Your task to perform on an android device: change the clock display to analog Image 0: 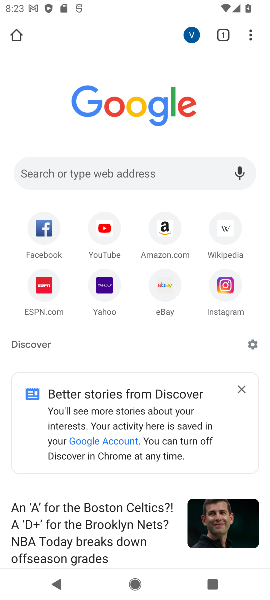
Step 0: press home button
Your task to perform on an android device: change the clock display to analog Image 1: 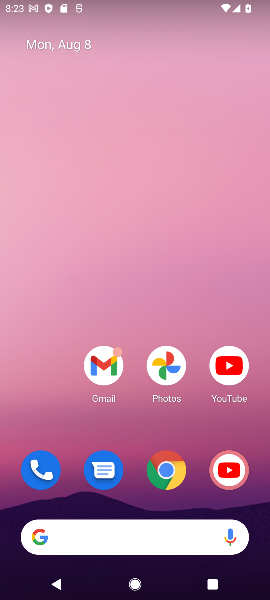
Step 1: drag from (128, 355) to (135, 262)
Your task to perform on an android device: change the clock display to analog Image 2: 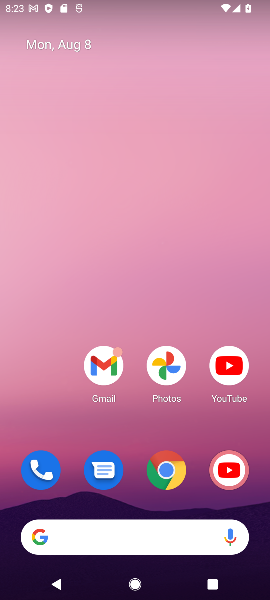
Step 2: drag from (152, 522) to (179, 151)
Your task to perform on an android device: change the clock display to analog Image 3: 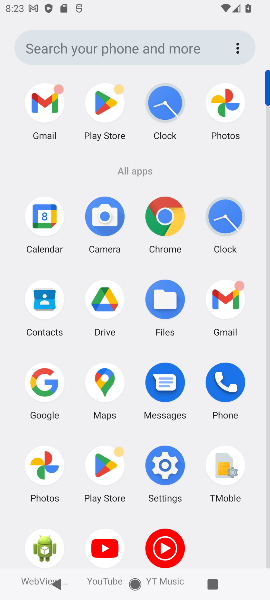
Step 3: click (219, 221)
Your task to perform on an android device: change the clock display to analog Image 4: 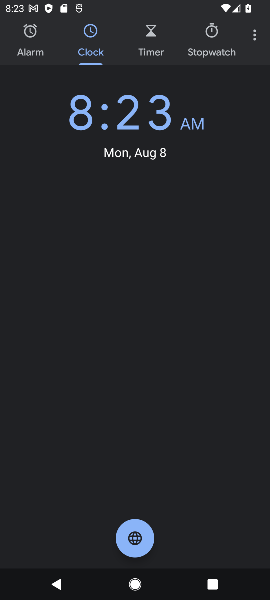
Step 4: click (254, 39)
Your task to perform on an android device: change the clock display to analog Image 5: 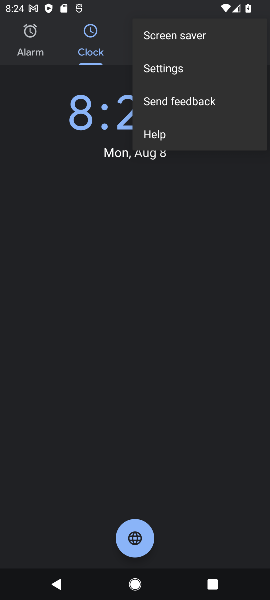
Step 5: click (170, 65)
Your task to perform on an android device: change the clock display to analog Image 6: 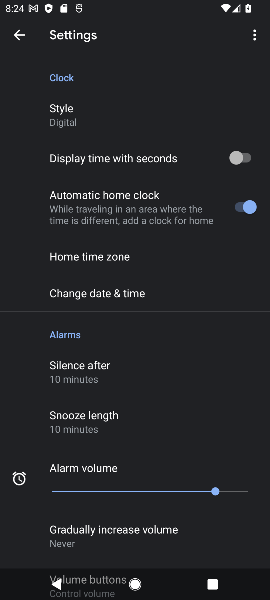
Step 6: click (66, 124)
Your task to perform on an android device: change the clock display to analog Image 7: 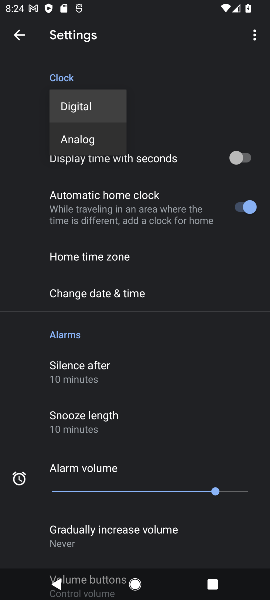
Step 7: click (71, 142)
Your task to perform on an android device: change the clock display to analog Image 8: 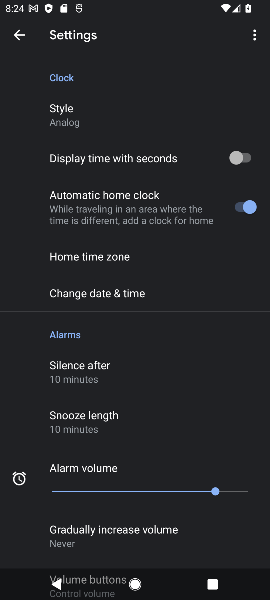
Step 8: task complete